Your task to perform on an android device: toggle translation in the chrome app Image 0: 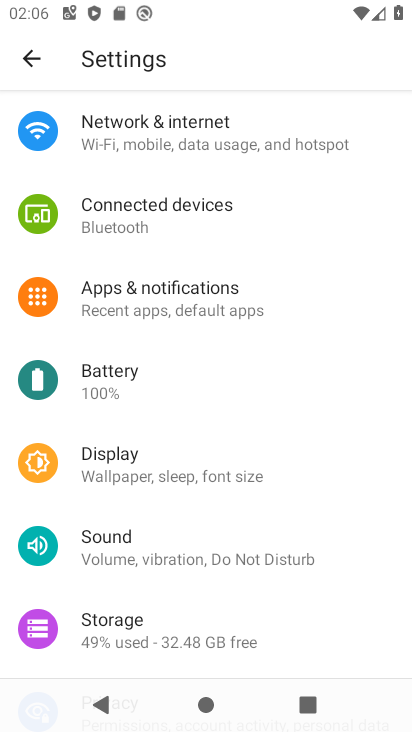
Step 0: drag from (157, 581) to (268, 186)
Your task to perform on an android device: toggle translation in the chrome app Image 1: 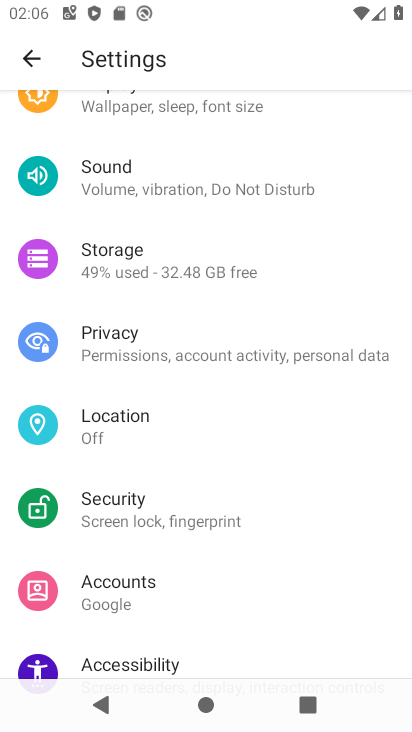
Step 1: press home button
Your task to perform on an android device: toggle translation in the chrome app Image 2: 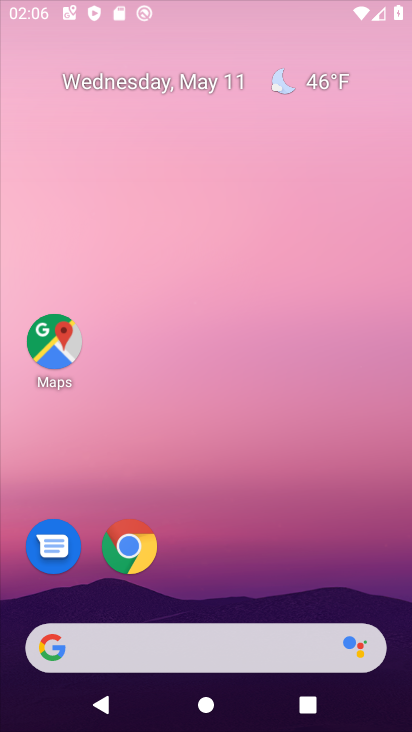
Step 2: drag from (215, 611) to (255, 0)
Your task to perform on an android device: toggle translation in the chrome app Image 3: 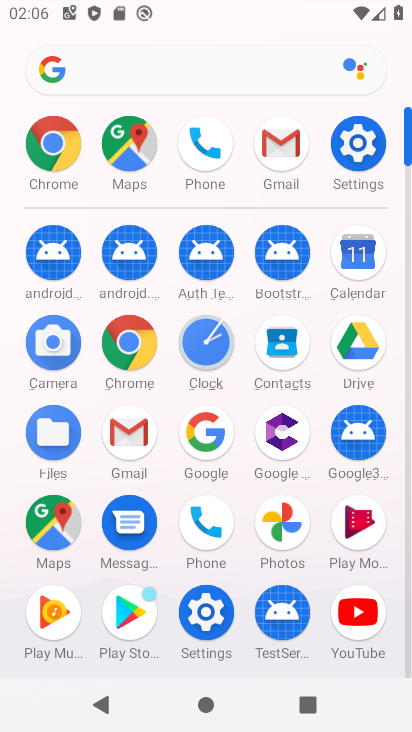
Step 3: click (127, 350)
Your task to perform on an android device: toggle translation in the chrome app Image 4: 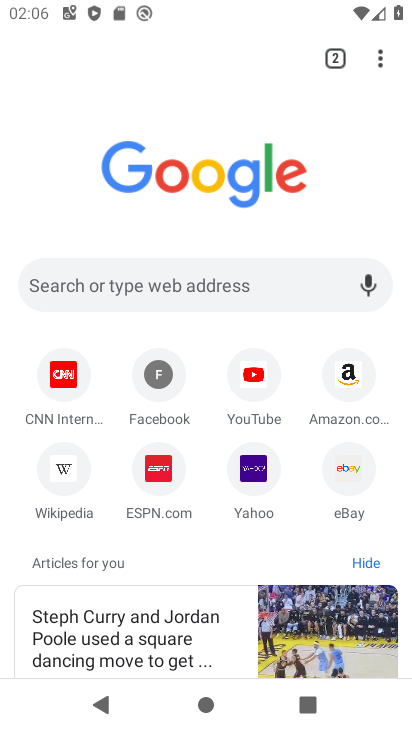
Step 4: drag from (387, 55) to (205, 489)
Your task to perform on an android device: toggle translation in the chrome app Image 5: 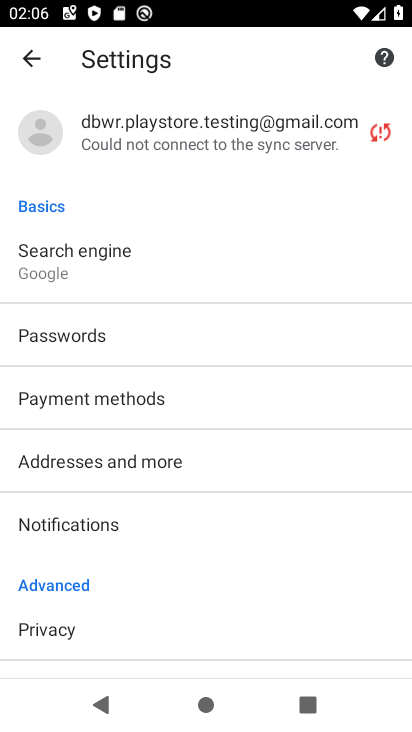
Step 5: drag from (198, 577) to (292, 163)
Your task to perform on an android device: toggle translation in the chrome app Image 6: 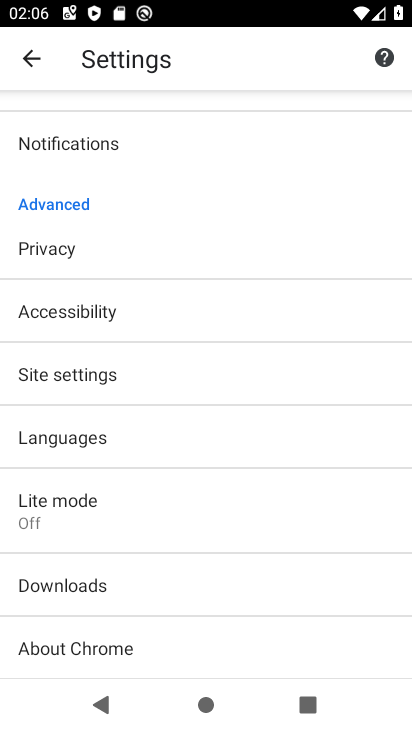
Step 6: click (95, 422)
Your task to perform on an android device: toggle translation in the chrome app Image 7: 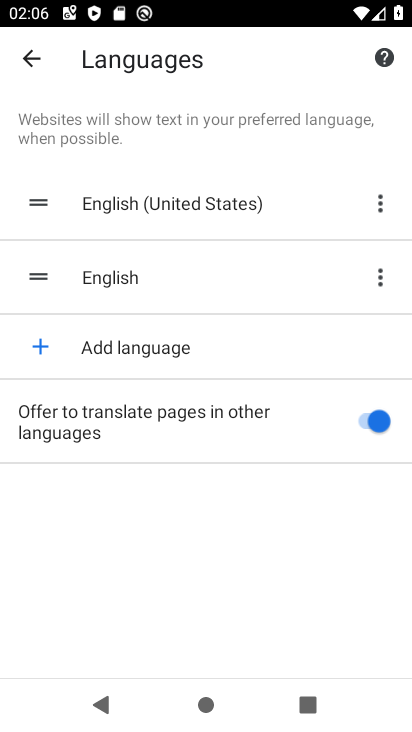
Step 7: click (356, 409)
Your task to perform on an android device: toggle translation in the chrome app Image 8: 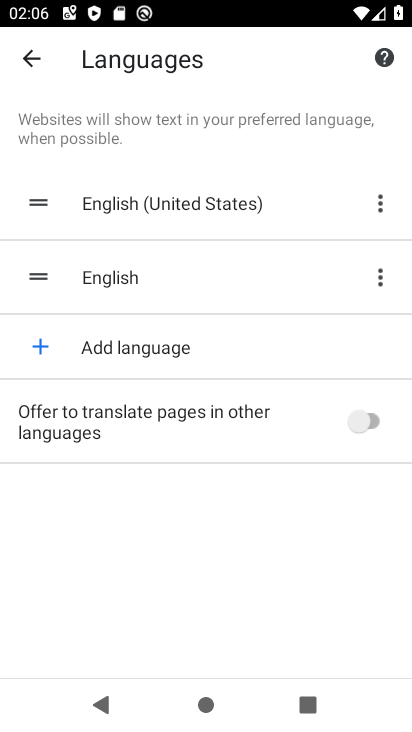
Step 8: task complete